Your task to perform on an android device: open app "Chime – Mobile Banking" (install if not already installed) Image 0: 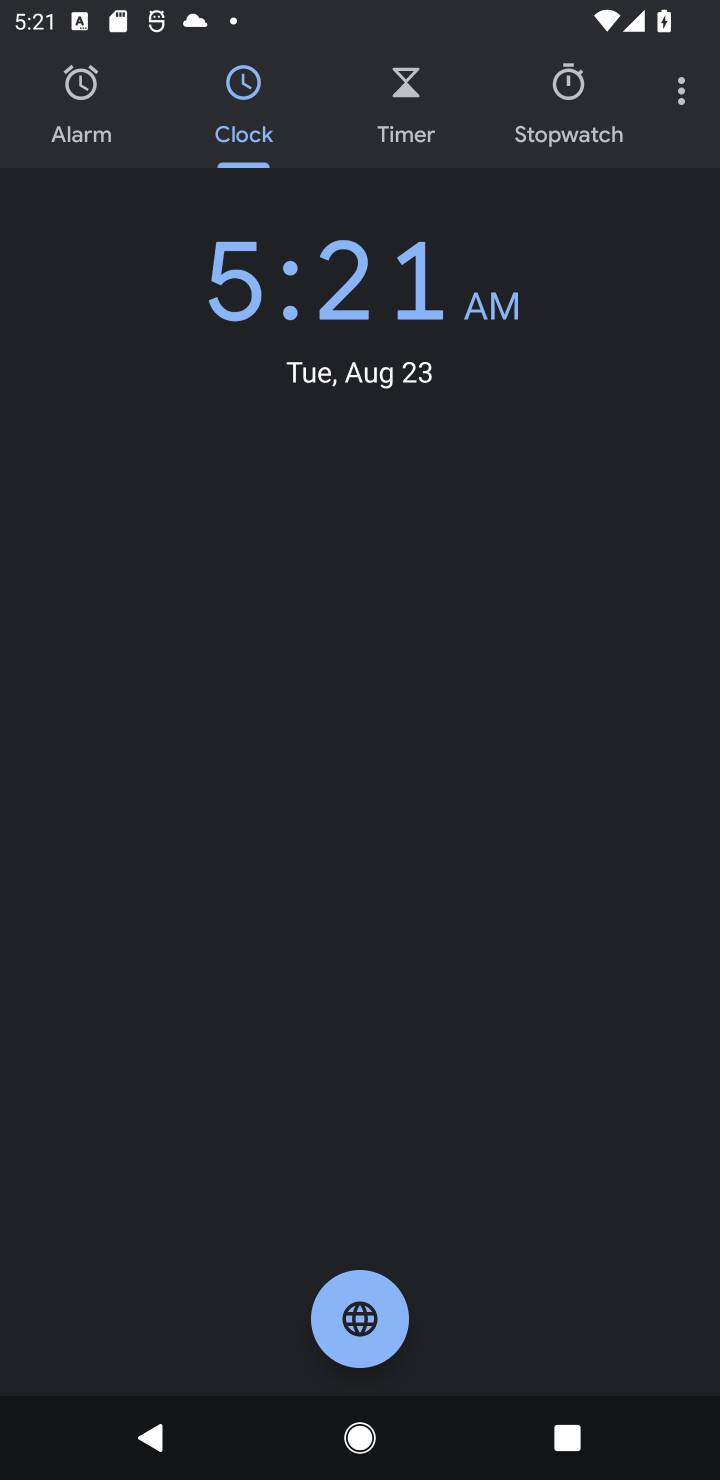
Step 0: press home button
Your task to perform on an android device: open app "Chime – Mobile Banking" (install if not already installed) Image 1: 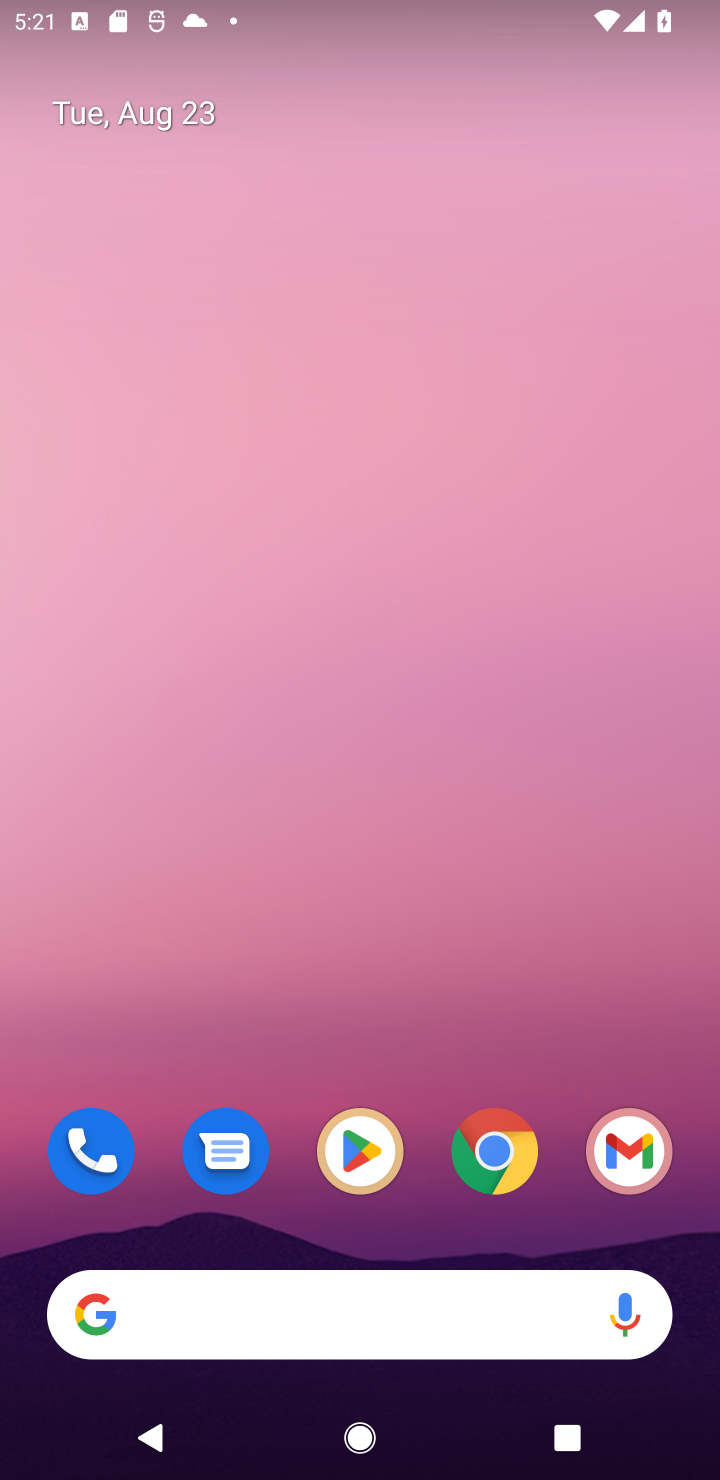
Step 1: click (362, 1157)
Your task to perform on an android device: open app "Chime – Mobile Banking" (install if not already installed) Image 2: 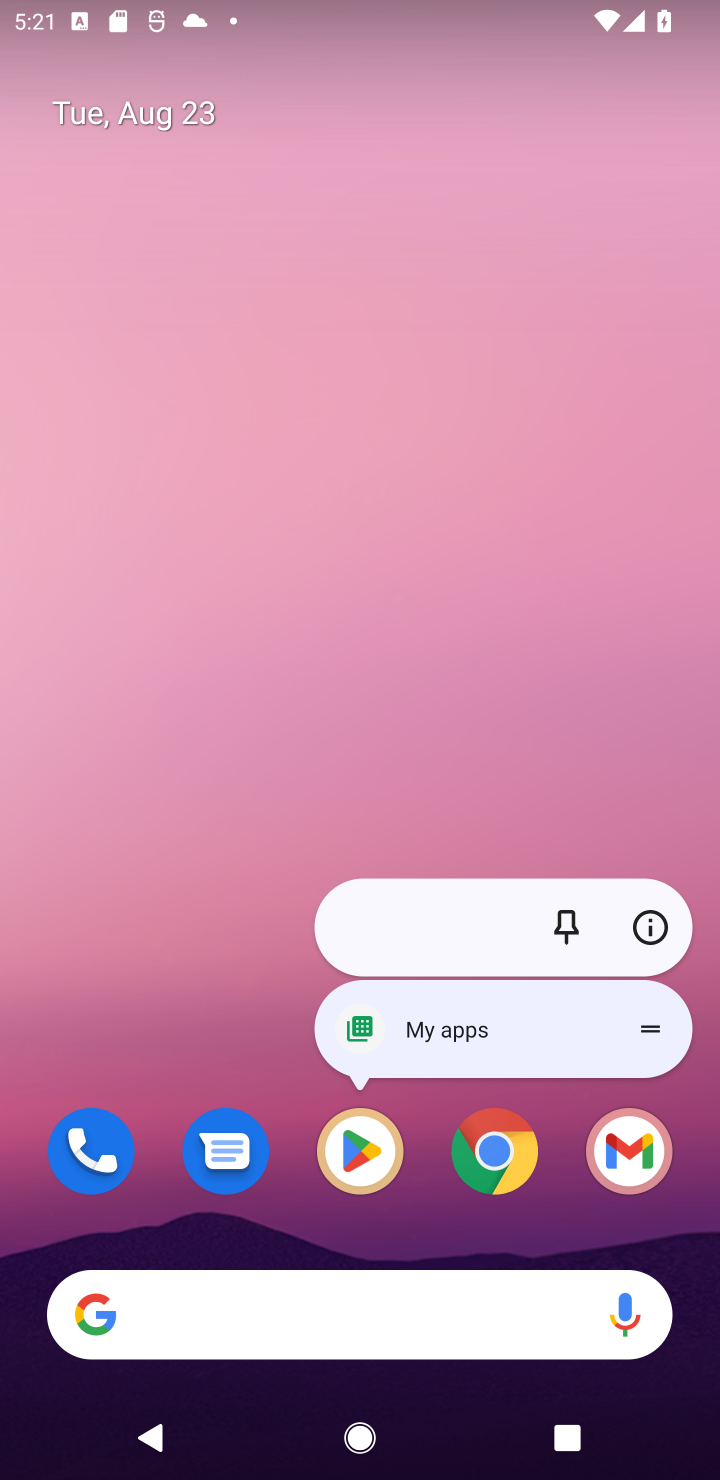
Step 2: click (343, 1159)
Your task to perform on an android device: open app "Chime – Mobile Banking" (install if not already installed) Image 3: 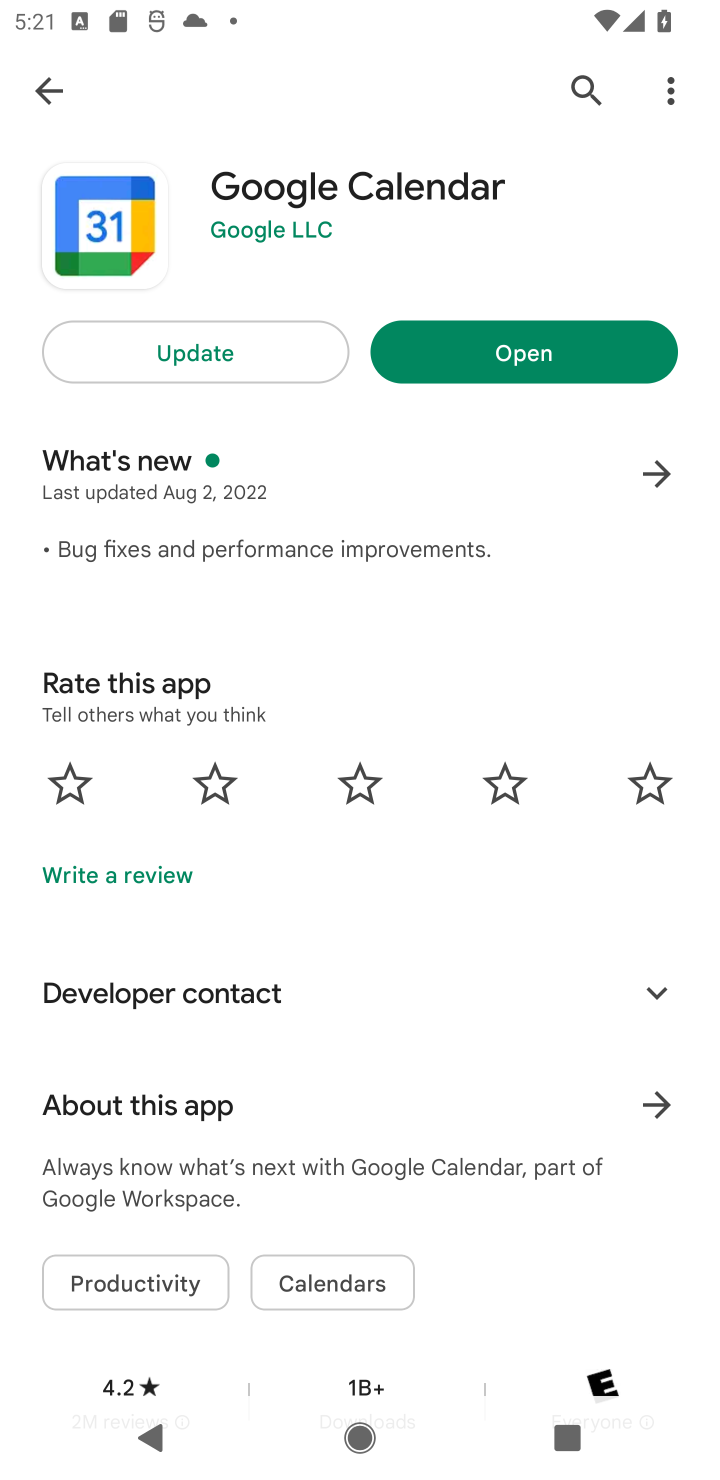
Step 3: click (583, 90)
Your task to perform on an android device: open app "Chime – Mobile Banking" (install if not already installed) Image 4: 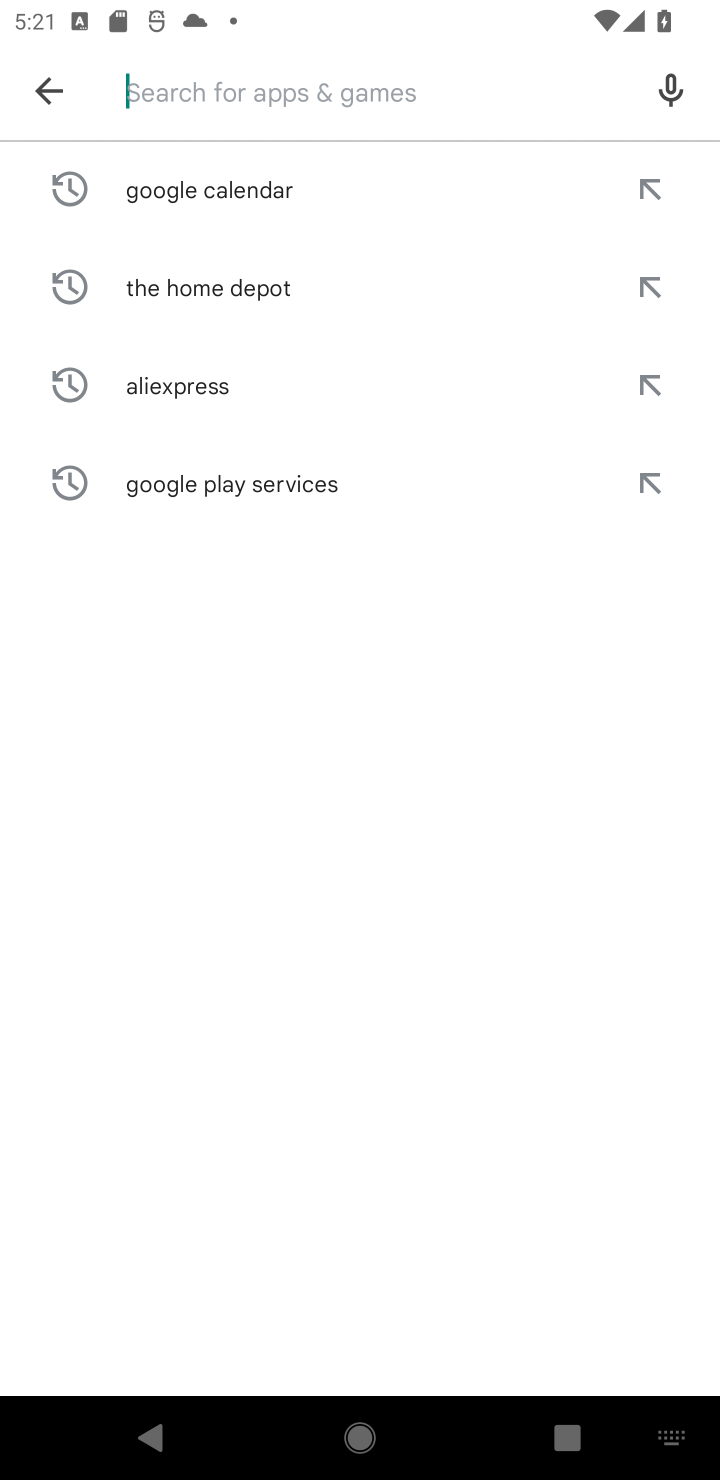
Step 4: type "Chime Mobile Banking"
Your task to perform on an android device: open app "Chime – Mobile Banking" (install if not already installed) Image 5: 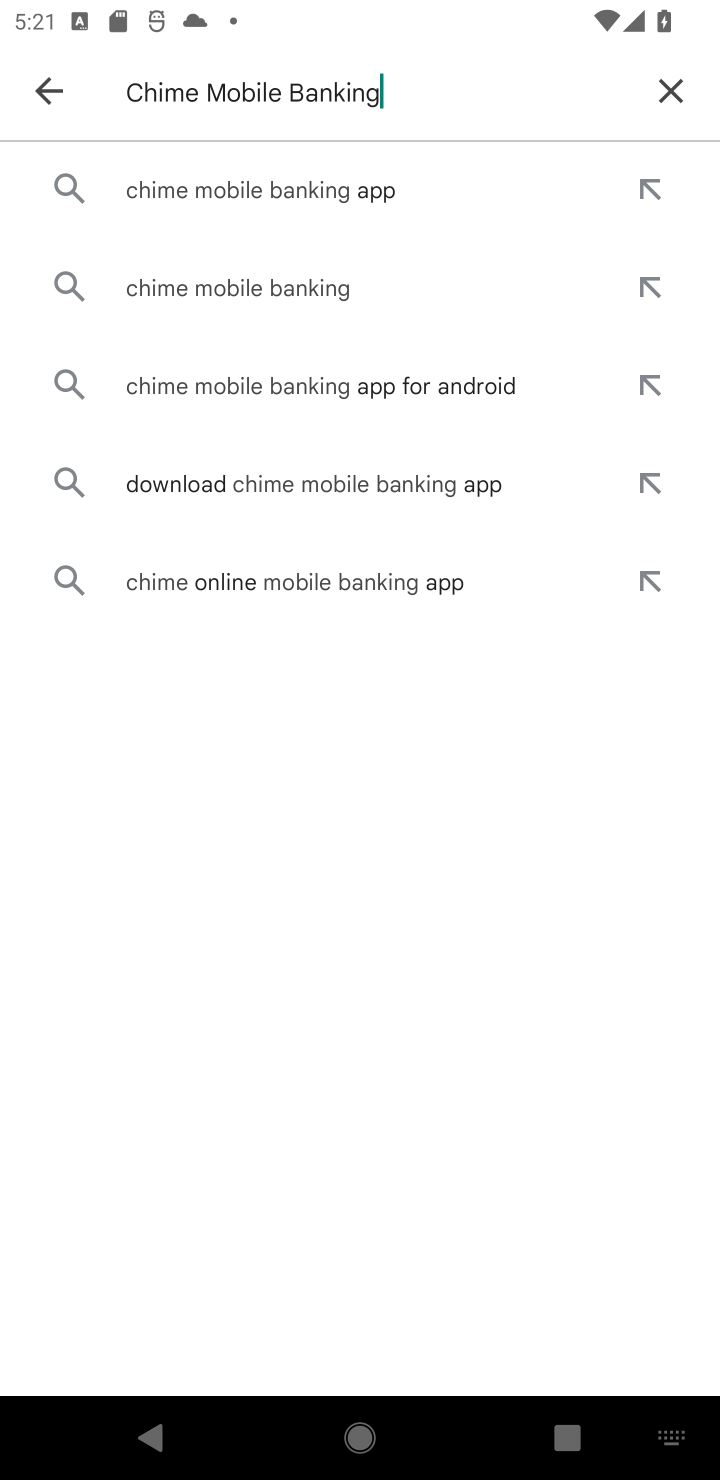
Step 5: click (260, 189)
Your task to perform on an android device: open app "Chime – Mobile Banking" (install if not already installed) Image 6: 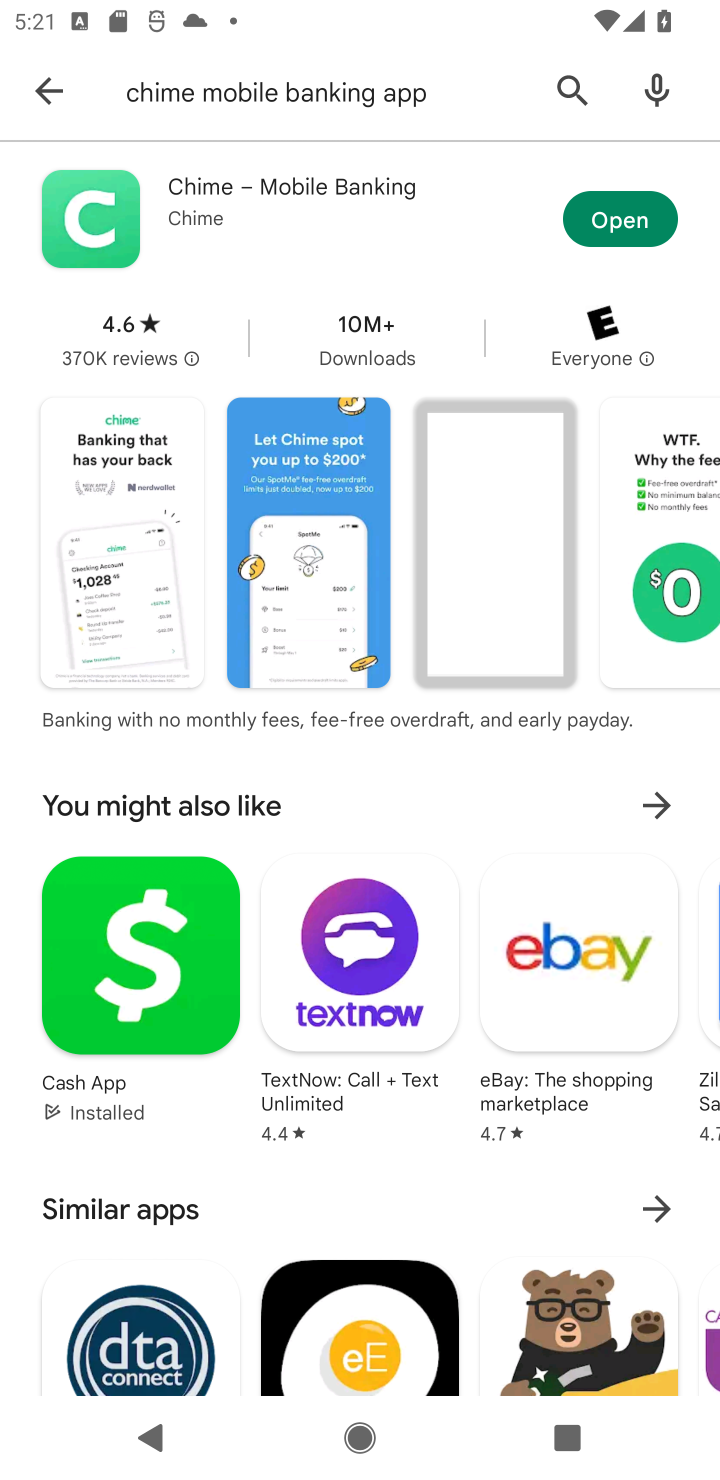
Step 6: click (637, 227)
Your task to perform on an android device: open app "Chime – Mobile Banking" (install if not already installed) Image 7: 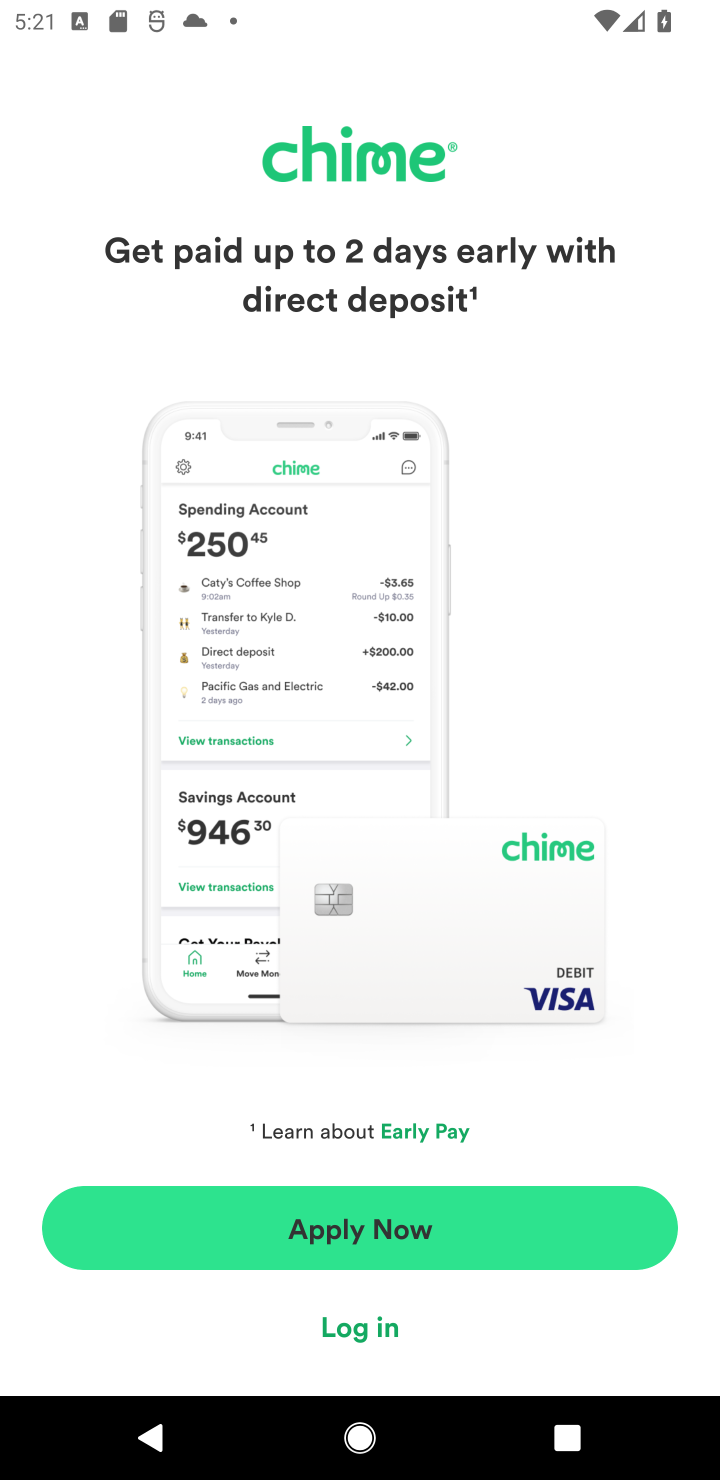
Step 7: task complete